Your task to perform on an android device: Go to Maps Image 0: 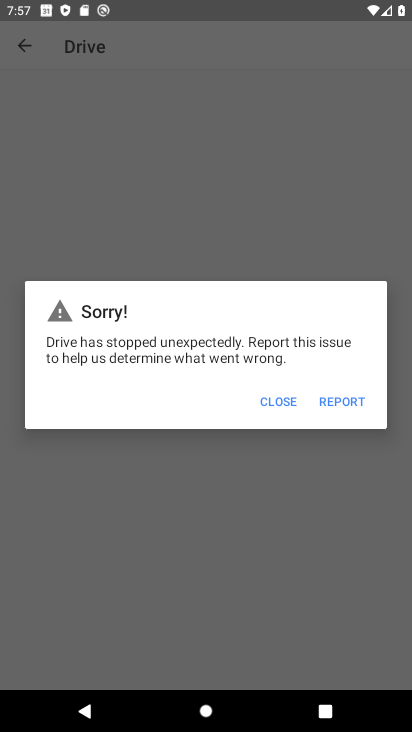
Step 0: press home button
Your task to perform on an android device: Go to Maps Image 1: 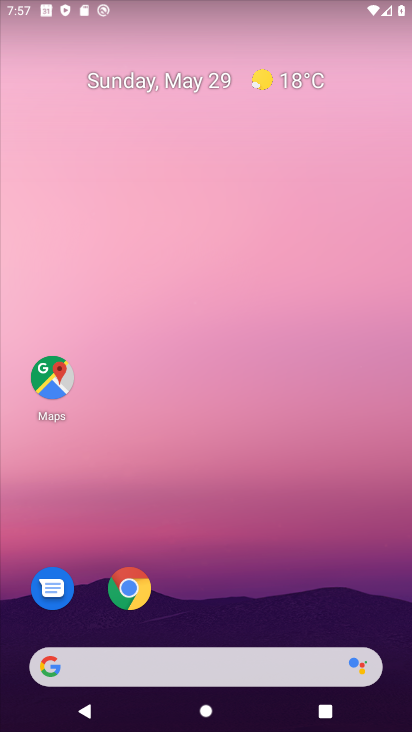
Step 1: click (48, 369)
Your task to perform on an android device: Go to Maps Image 2: 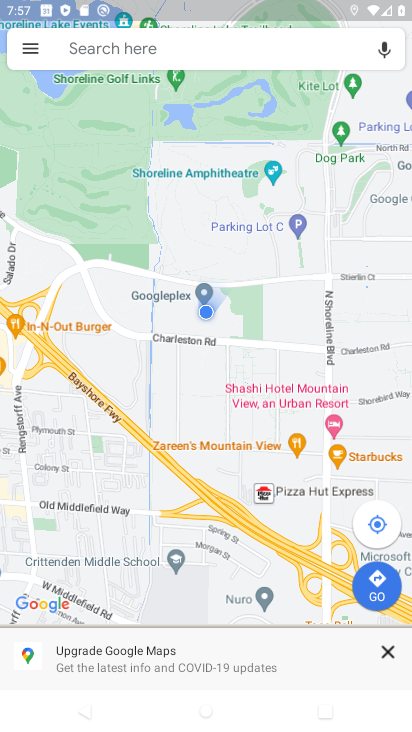
Step 2: task complete